Your task to perform on an android device: turn on notifications settings in the gmail app Image 0: 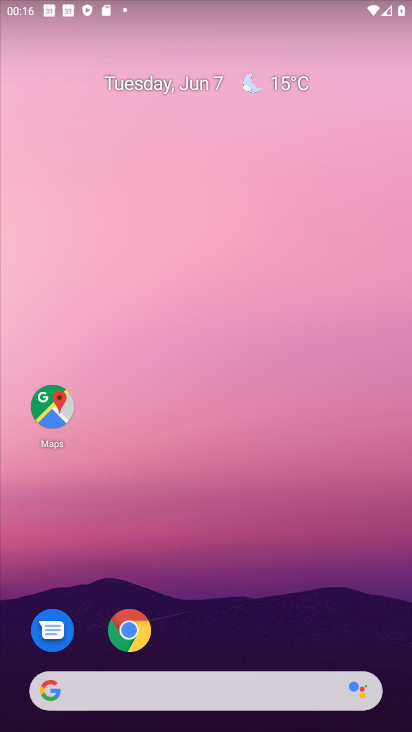
Step 0: press home button
Your task to perform on an android device: turn on notifications settings in the gmail app Image 1: 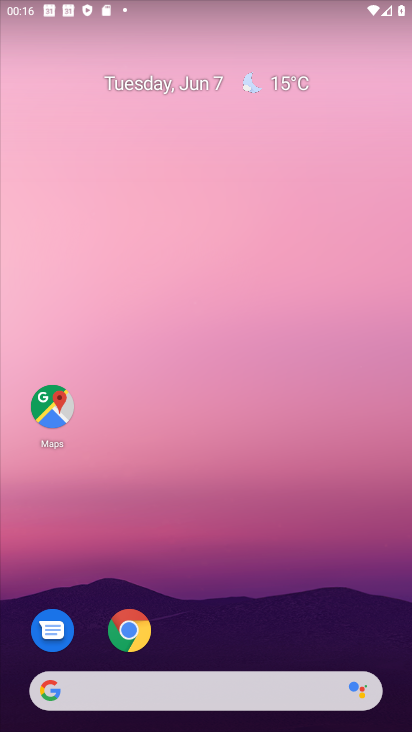
Step 1: drag from (272, 528) to (290, 178)
Your task to perform on an android device: turn on notifications settings in the gmail app Image 2: 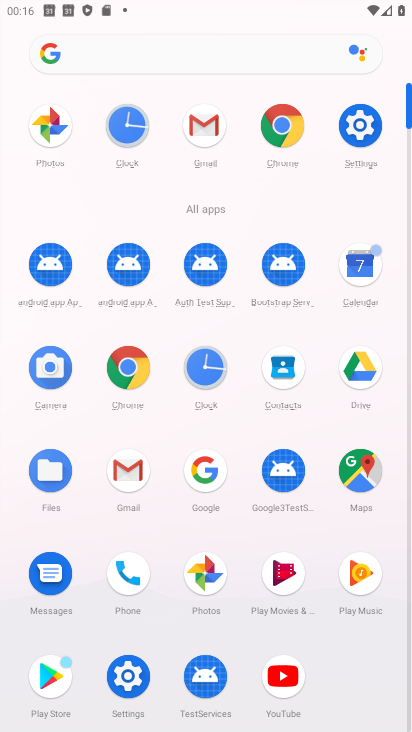
Step 2: click (139, 479)
Your task to perform on an android device: turn on notifications settings in the gmail app Image 3: 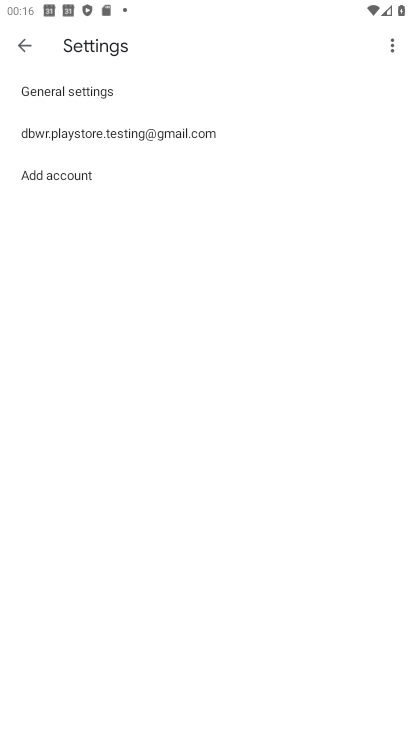
Step 3: click (222, 137)
Your task to perform on an android device: turn on notifications settings in the gmail app Image 4: 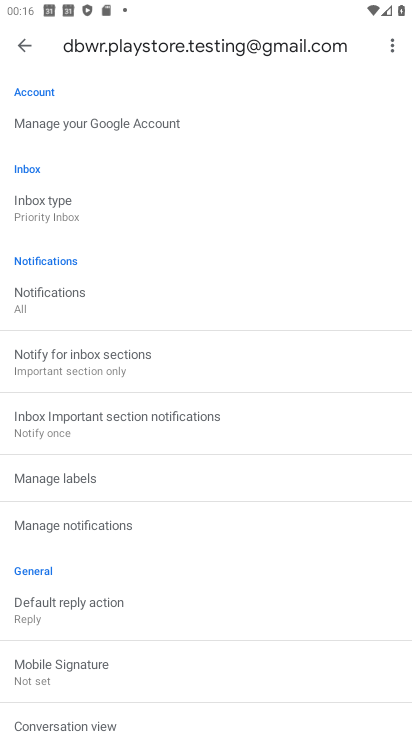
Step 4: click (88, 297)
Your task to perform on an android device: turn on notifications settings in the gmail app Image 5: 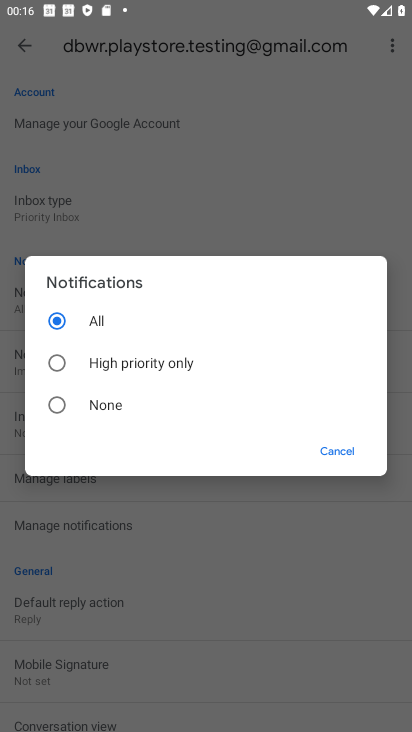
Step 5: task complete